Your task to perform on an android device: Open maps Image 0: 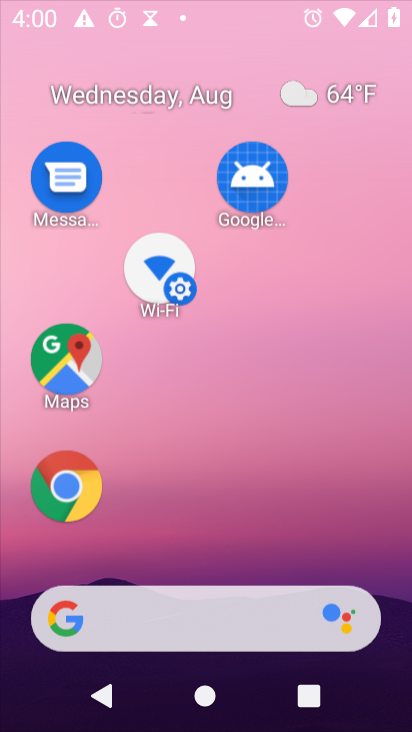
Step 0: press home button
Your task to perform on an android device: Open maps Image 1: 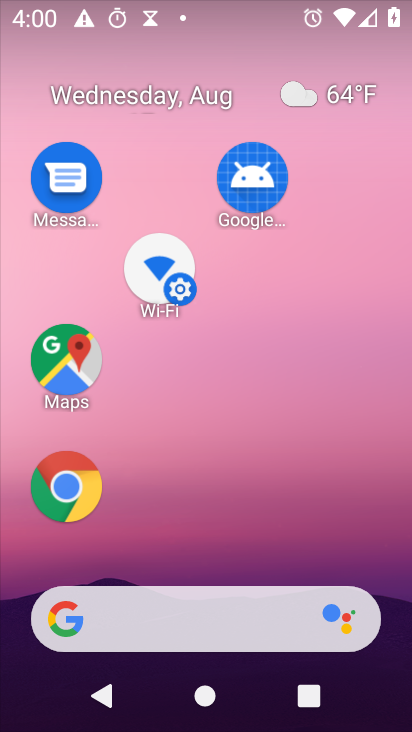
Step 1: click (64, 357)
Your task to perform on an android device: Open maps Image 2: 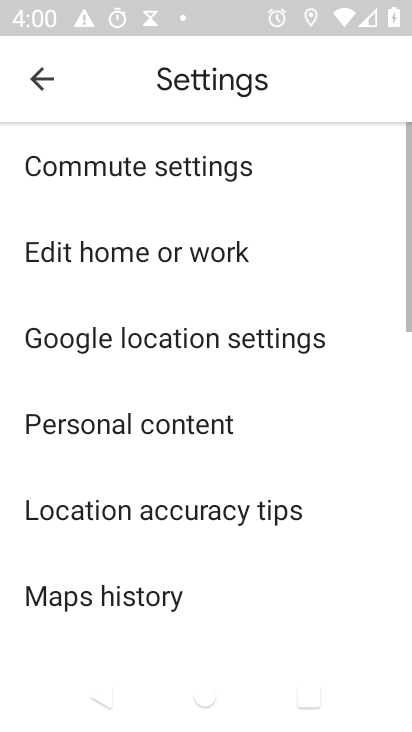
Step 2: task complete